Your task to perform on an android device: Open notification settings Image 0: 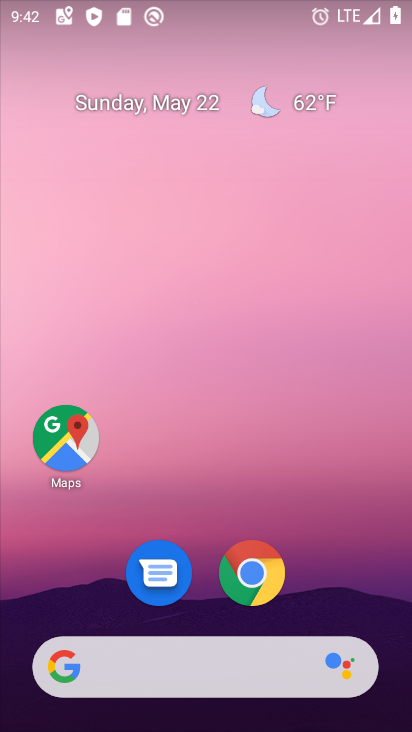
Step 0: drag from (263, 651) to (255, 76)
Your task to perform on an android device: Open notification settings Image 1: 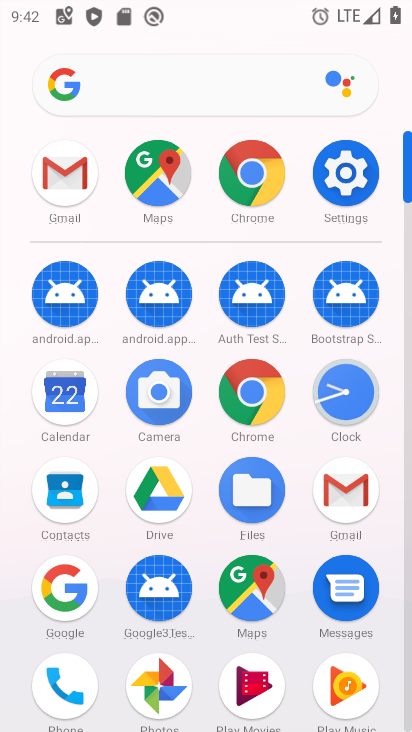
Step 1: click (348, 189)
Your task to perform on an android device: Open notification settings Image 2: 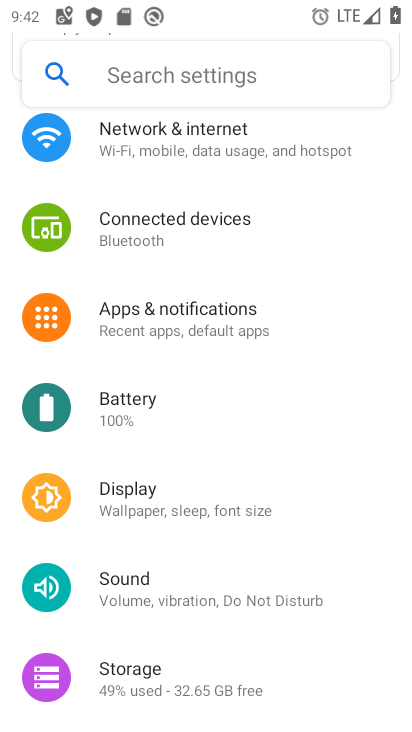
Step 2: click (243, 332)
Your task to perform on an android device: Open notification settings Image 3: 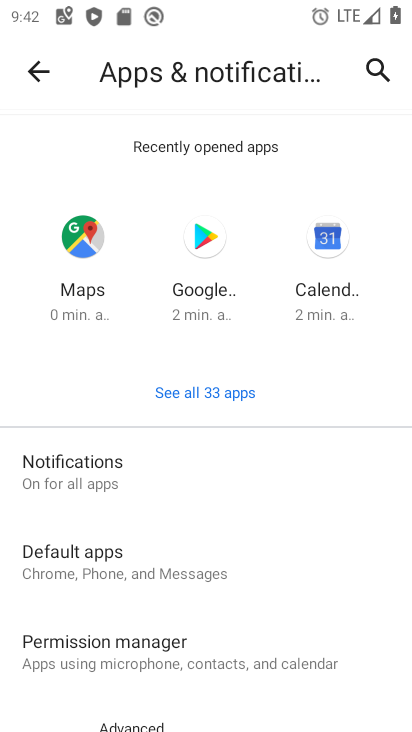
Step 3: task complete